Your task to perform on an android device: Play the last video I watched on Youtube Image 0: 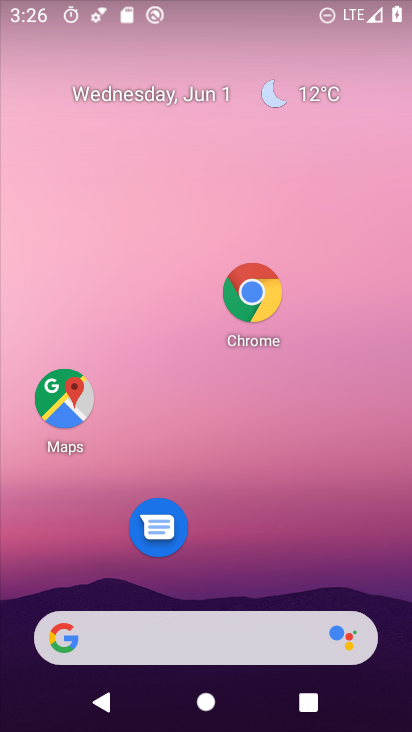
Step 0: drag from (195, 490) to (380, 507)
Your task to perform on an android device: Play the last video I watched on Youtube Image 1: 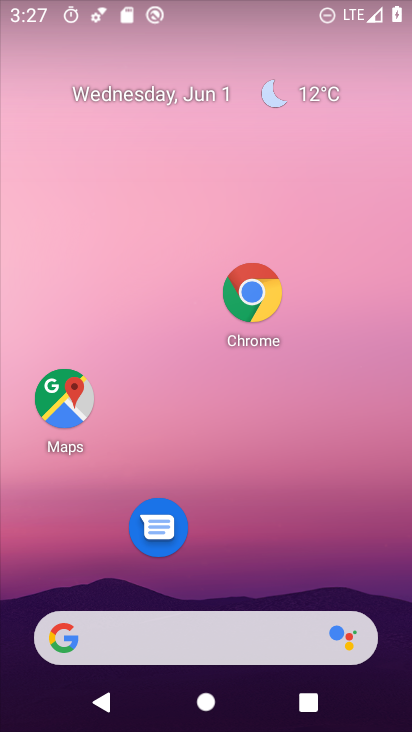
Step 1: drag from (195, 486) to (290, 164)
Your task to perform on an android device: Play the last video I watched on Youtube Image 2: 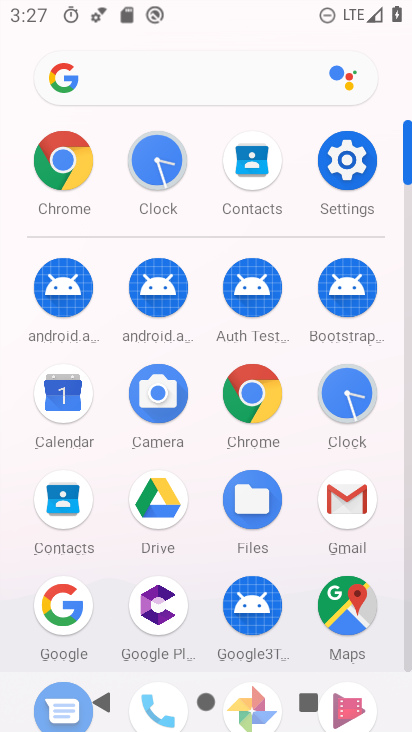
Step 2: drag from (240, 602) to (269, 260)
Your task to perform on an android device: Play the last video I watched on Youtube Image 3: 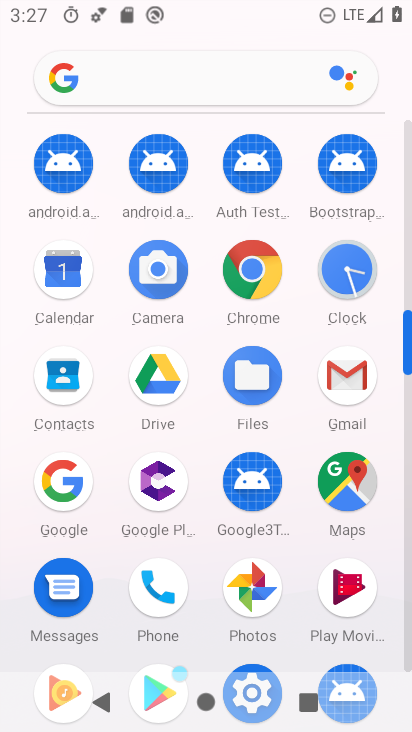
Step 3: drag from (245, 403) to (284, 237)
Your task to perform on an android device: Play the last video I watched on Youtube Image 4: 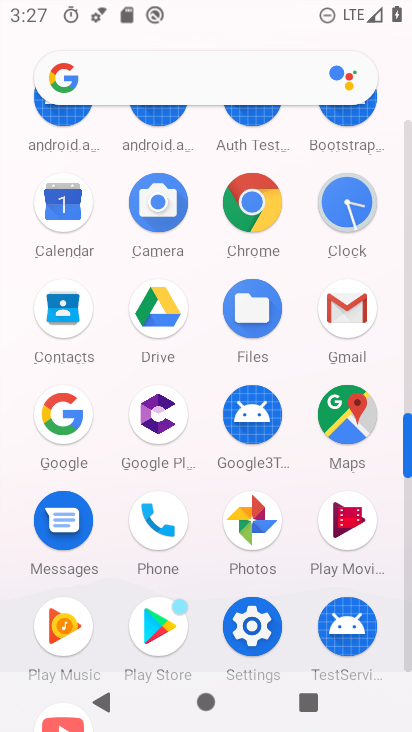
Step 4: drag from (256, 414) to (303, 192)
Your task to perform on an android device: Play the last video I watched on Youtube Image 5: 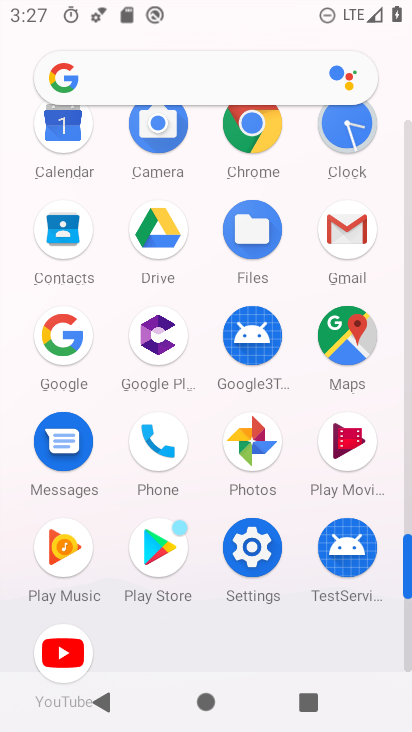
Step 5: click (71, 658)
Your task to perform on an android device: Play the last video I watched on Youtube Image 6: 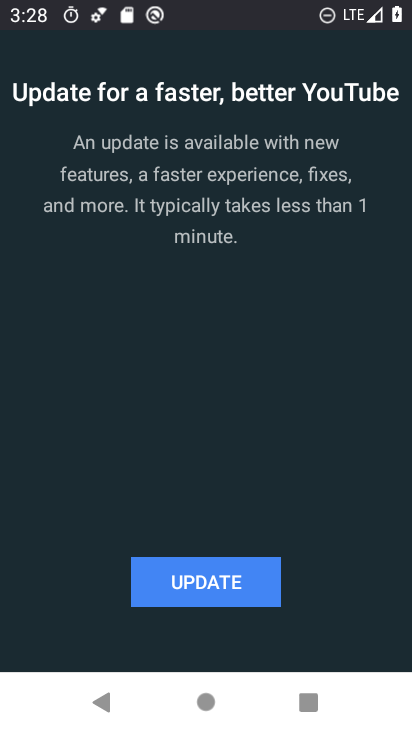
Step 6: click (255, 355)
Your task to perform on an android device: Play the last video I watched on Youtube Image 7: 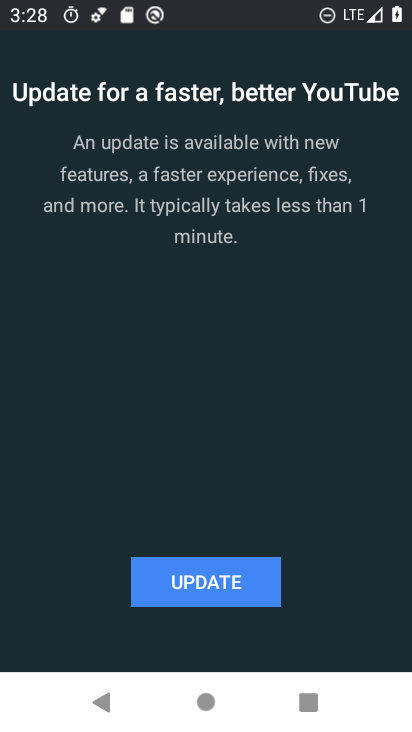
Step 7: task complete